Your task to perform on an android device: stop showing notifications on the lock screen Image 0: 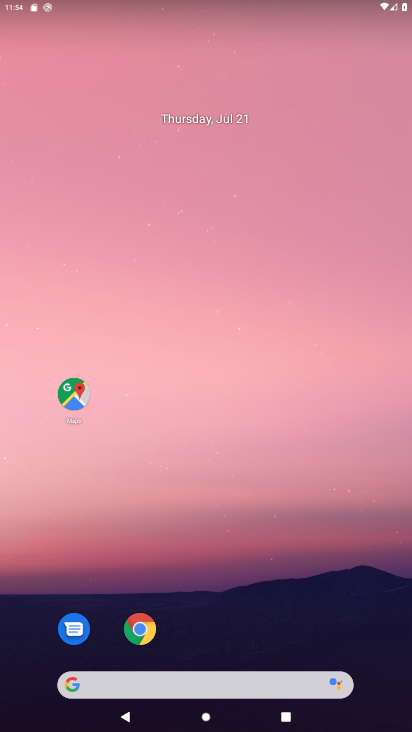
Step 0: drag from (201, 638) to (213, 127)
Your task to perform on an android device: stop showing notifications on the lock screen Image 1: 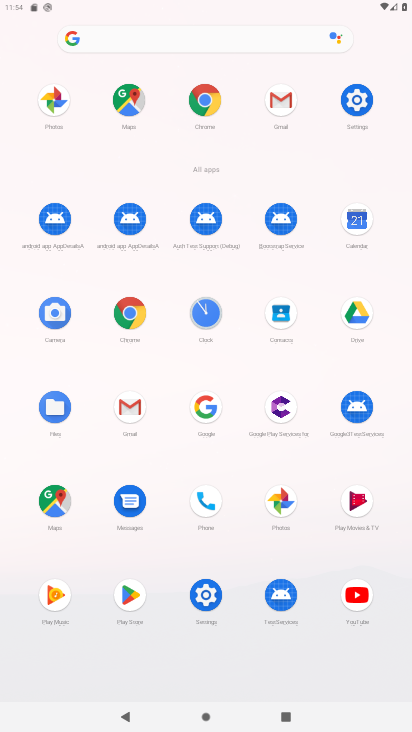
Step 1: click (205, 590)
Your task to perform on an android device: stop showing notifications on the lock screen Image 2: 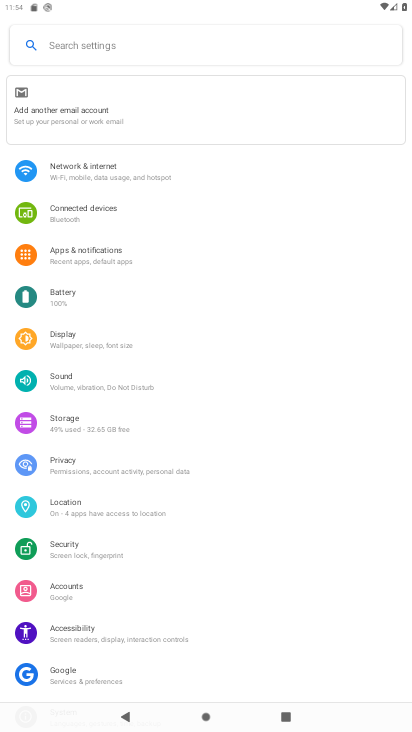
Step 2: click (123, 254)
Your task to perform on an android device: stop showing notifications on the lock screen Image 3: 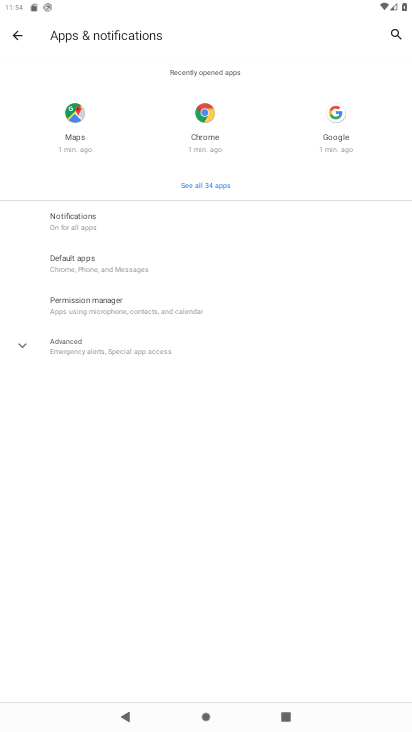
Step 3: click (95, 227)
Your task to perform on an android device: stop showing notifications on the lock screen Image 4: 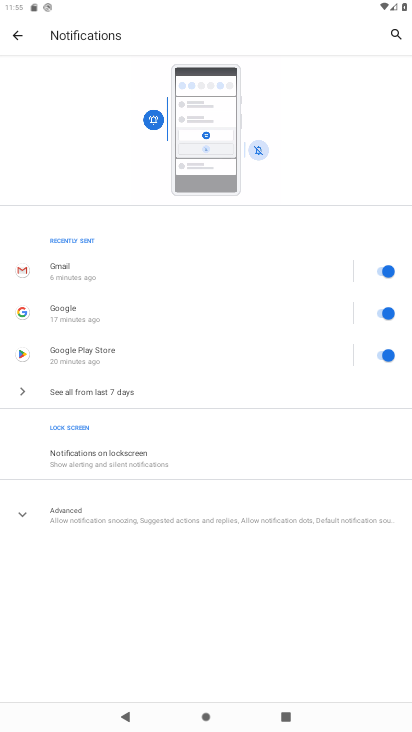
Step 4: click (132, 452)
Your task to perform on an android device: stop showing notifications on the lock screen Image 5: 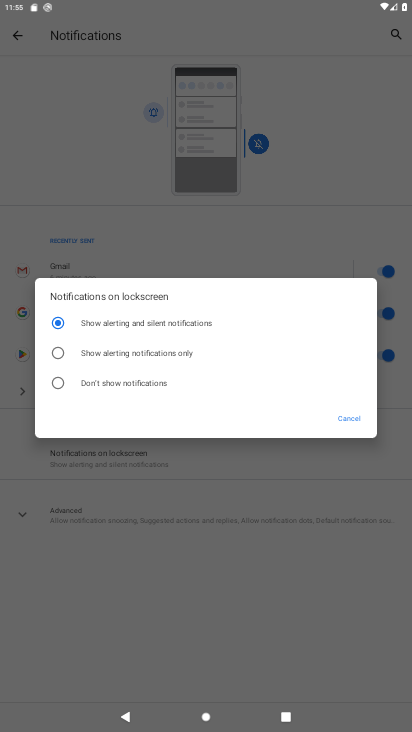
Step 5: click (87, 376)
Your task to perform on an android device: stop showing notifications on the lock screen Image 6: 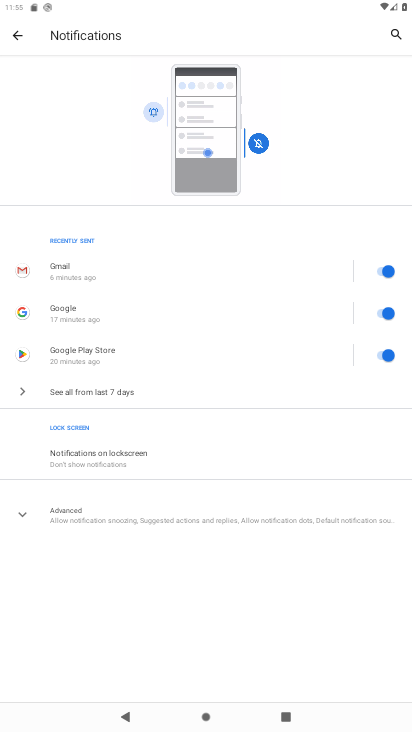
Step 6: task complete